Your task to perform on an android device: Open internet settings Image 0: 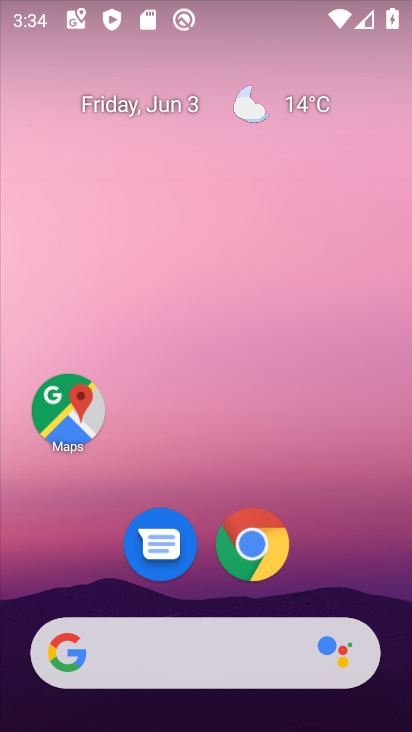
Step 0: click (370, 142)
Your task to perform on an android device: Open internet settings Image 1: 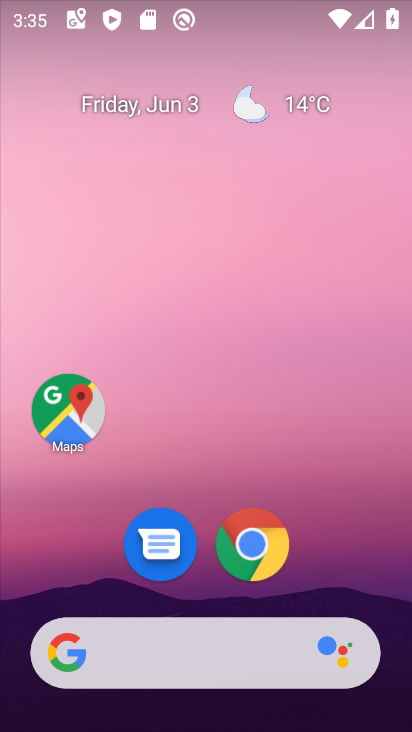
Step 1: drag from (366, 599) to (354, 17)
Your task to perform on an android device: Open internet settings Image 2: 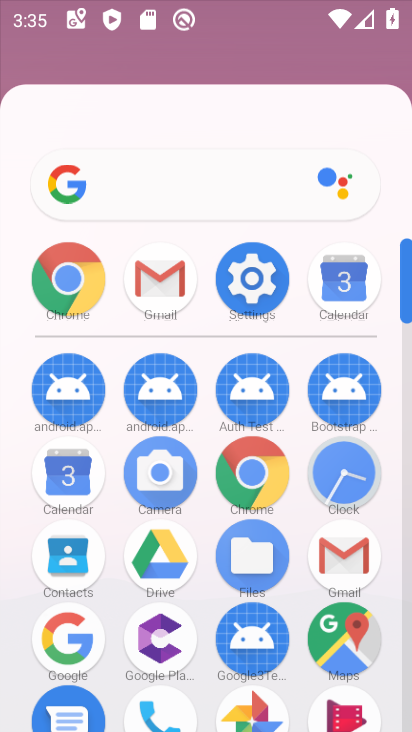
Step 2: drag from (408, 705) to (409, 651)
Your task to perform on an android device: Open internet settings Image 3: 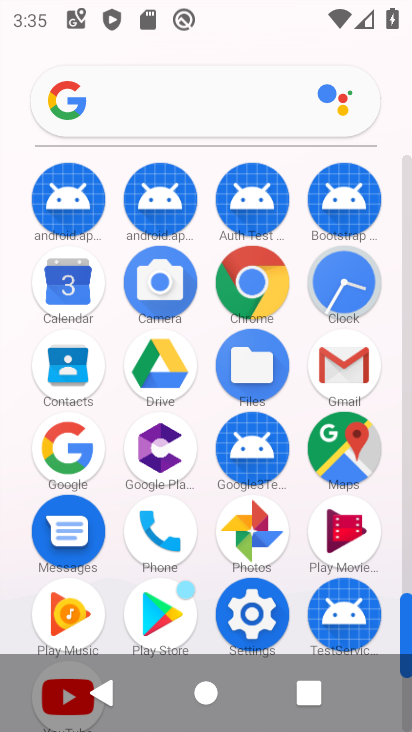
Step 3: click (251, 612)
Your task to perform on an android device: Open internet settings Image 4: 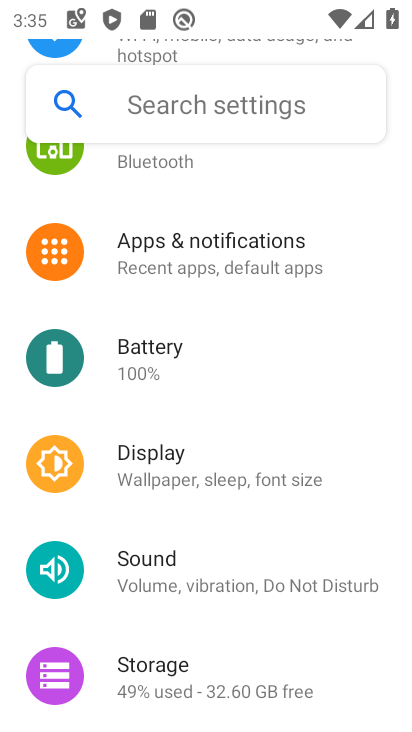
Step 4: drag from (303, 210) to (313, 494)
Your task to perform on an android device: Open internet settings Image 5: 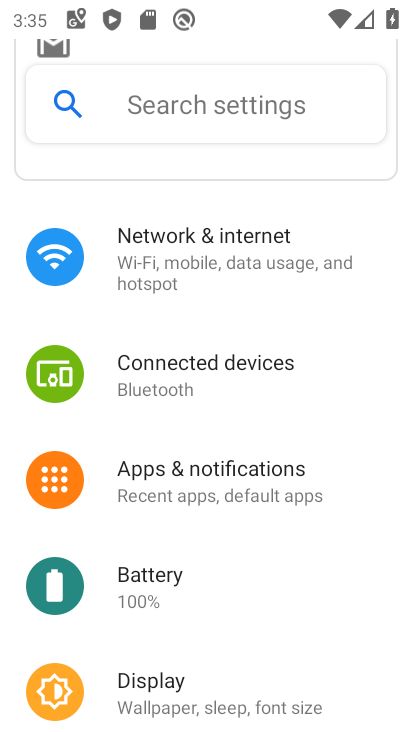
Step 5: click (158, 251)
Your task to perform on an android device: Open internet settings Image 6: 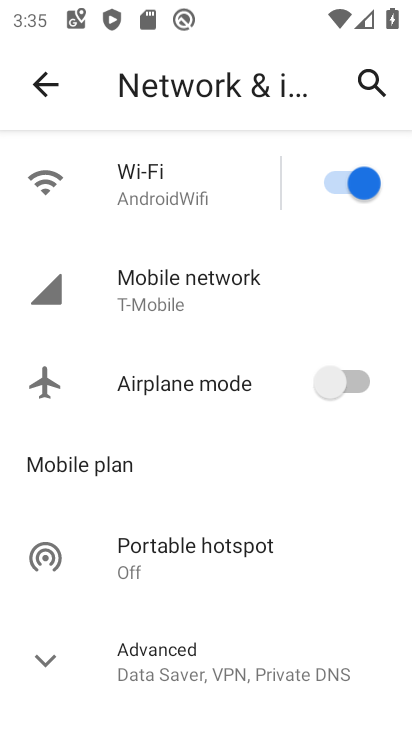
Step 6: task complete